Your task to perform on an android device: show emergency info Image 0: 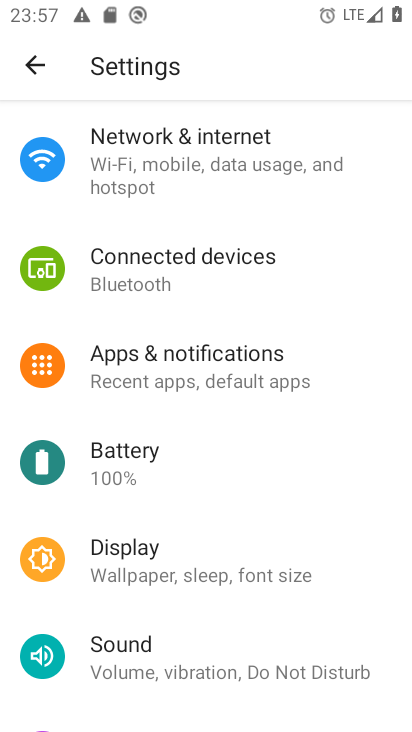
Step 0: drag from (306, 657) to (293, 69)
Your task to perform on an android device: show emergency info Image 1: 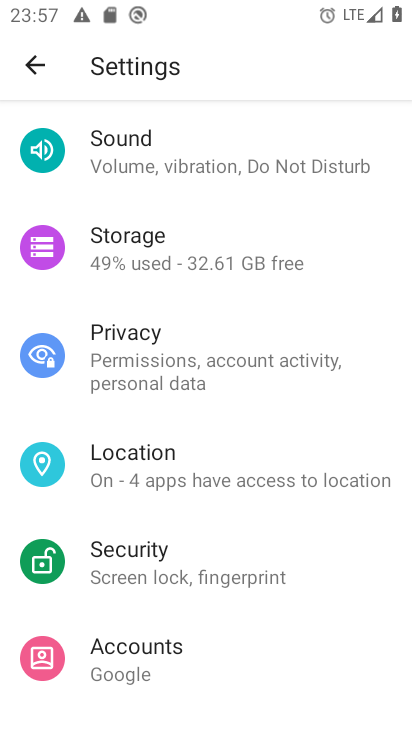
Step 1: drag from (187, 664) to (212, 136)
Your task to perform on an android device: show emergency info Image 2: 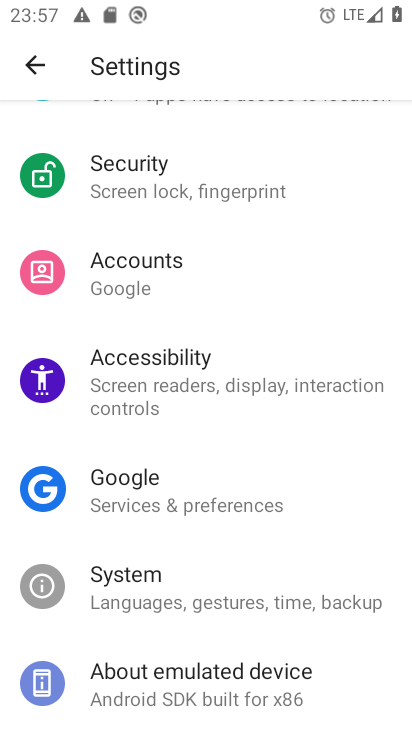
Step 2: click (144, 676)
Your task to perform on an android device: show emergency info Image 3: 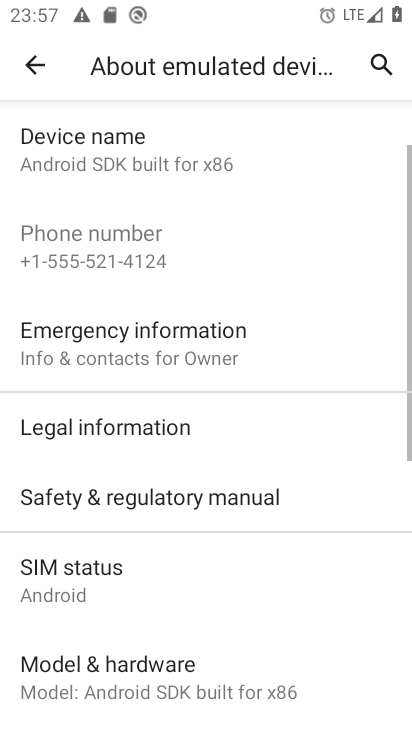
Step 3: click (186, 356)
Your task to perform on an android device: show emergency info Image 4: 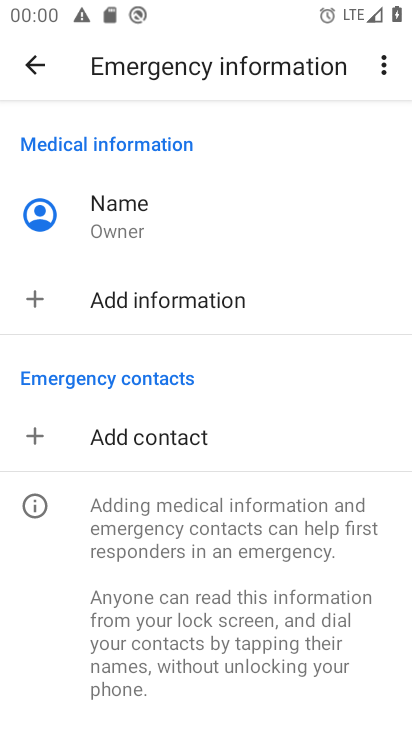
Step 4: task complete